Your task to perform on an android device: change alarm snooze length Image 0: 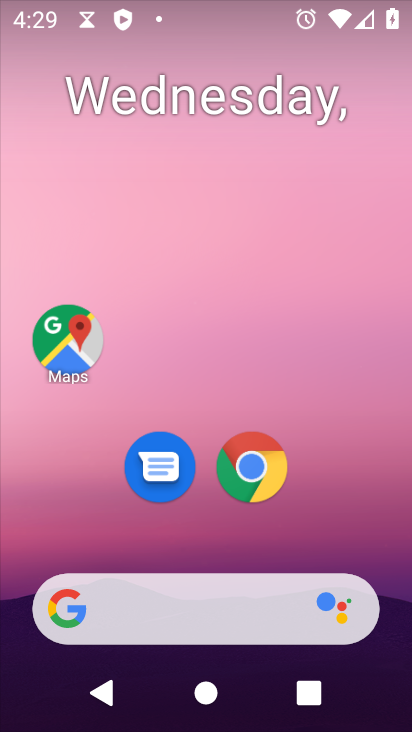
Step 0: drag from (372, 414) to (365, 103)
Your task to perform on an android device: change alarm snooze length Image 1: 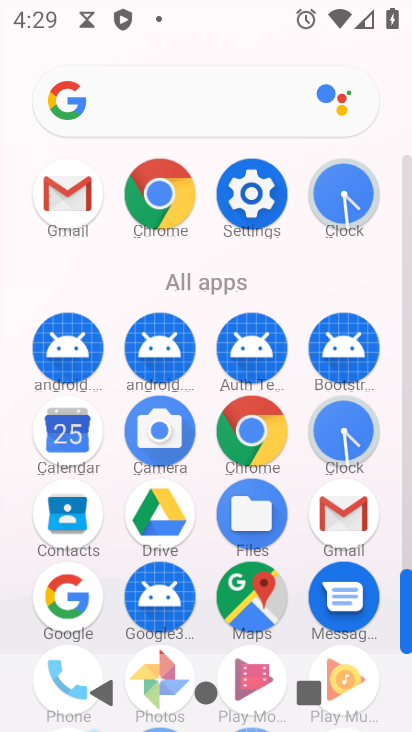
Step 1: click (357, 212)
Your task to perform on an android device: change alarm snooze length Image 2: 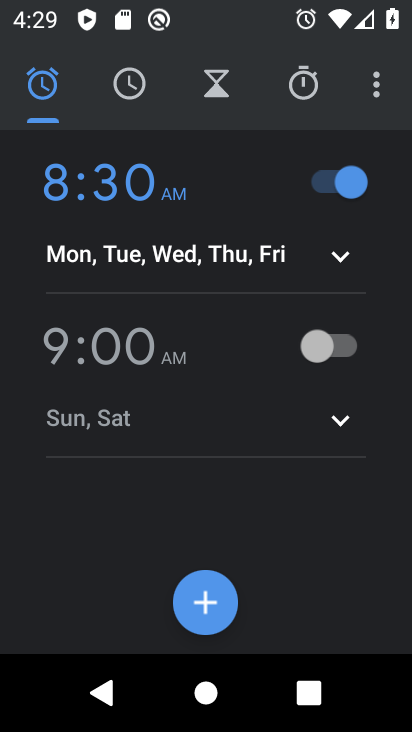
Step 2: click (375, 107)
Your task to perform on an android device: change alarm snooze length Image 3: 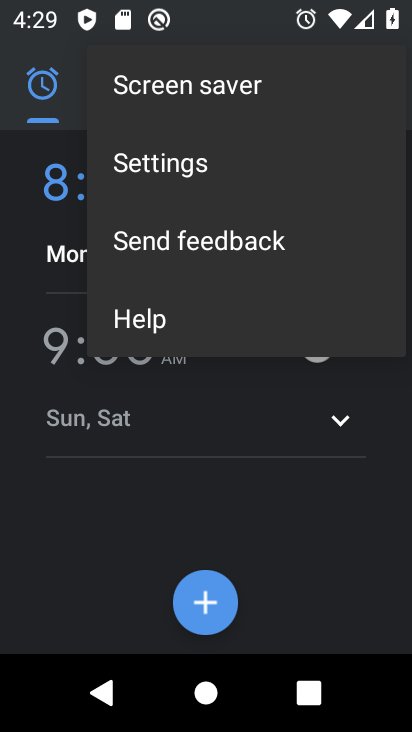
Step 3: click (253, 178)
Your task to perform on an android device: change alarm snooze length Image 4: 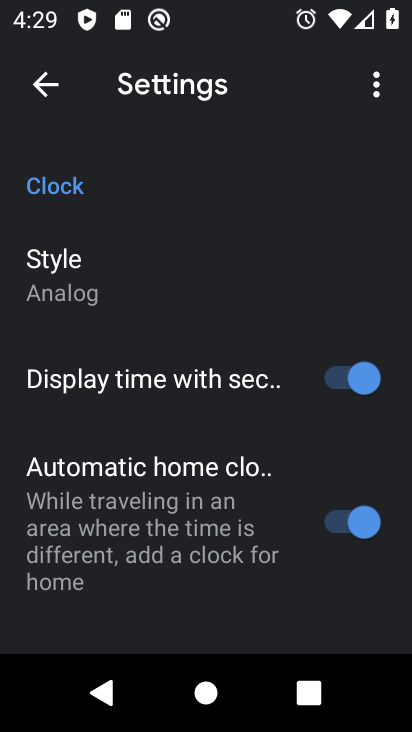
Step 4: drag from (195, 576) to (191, 126)
Your task to perform on an android device: change alarm snooze length Image 5: 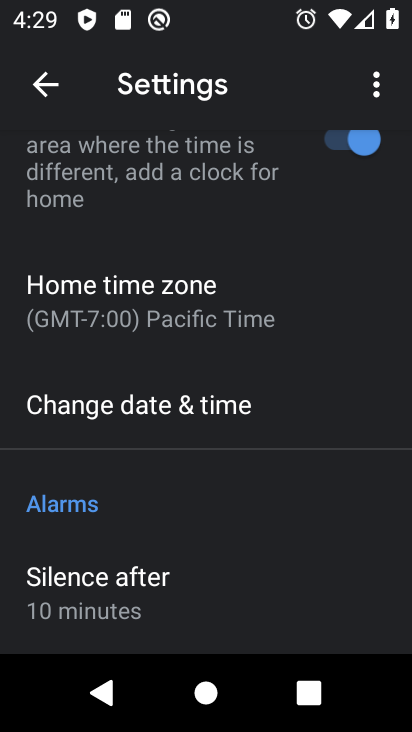
Step 5: drag from (171, 571) to (228, 171)
Your task to perform on an android device: change alarm snooze length Image 6: 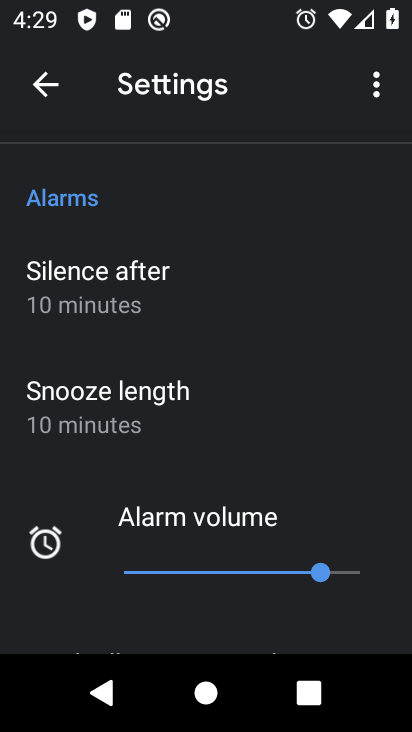
Step 6: click (85, 428)
Your task to perform on an android device: change alarm snooze length Image 7: 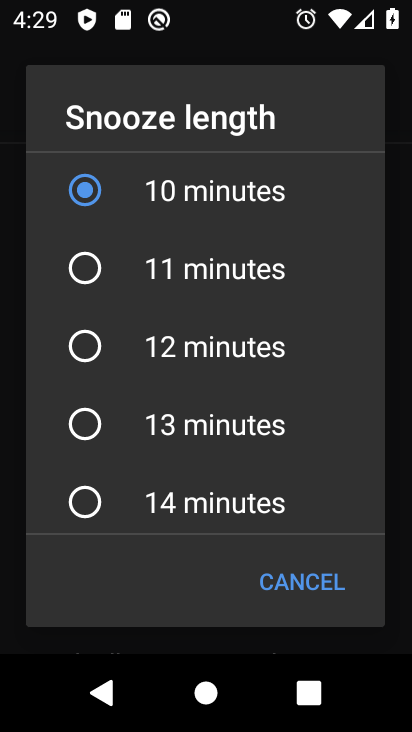
Step 7: click (89, 378)
Your task to perform on an android device: change alarm snooze length Image 8: 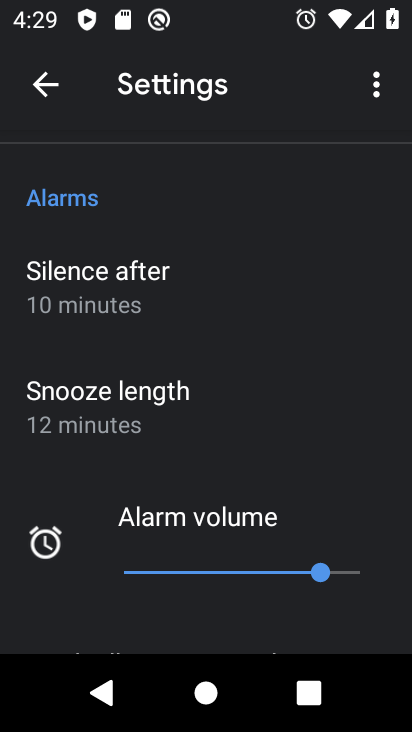
Step 8: task complete